Your task to perform on an android device: turn on translation in the chrome app Image 0: 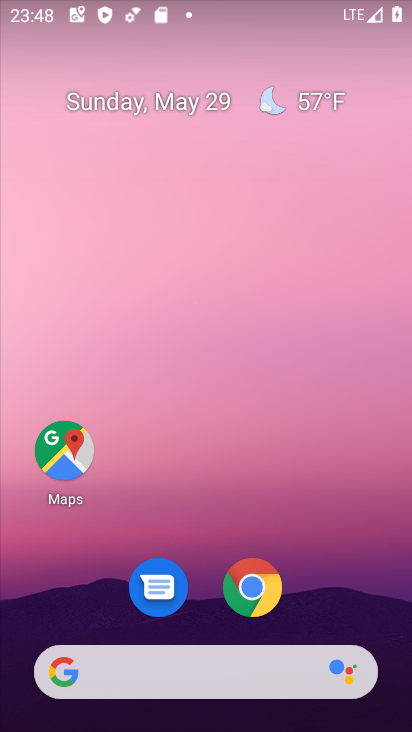
Step 0: drag from (377, 606) to (244, 87)
Your task to perform on an android device: turn on translation in the chrome app Image 1: 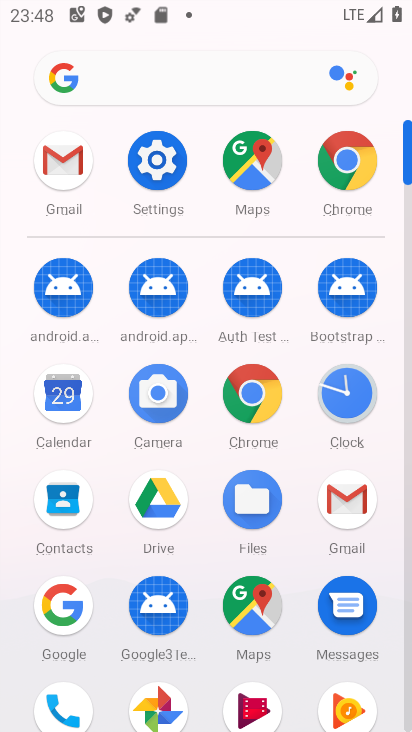
Step 1: click (355, 161)
Your task to perform on an android device: turn on translation in the chrome app Image 2: 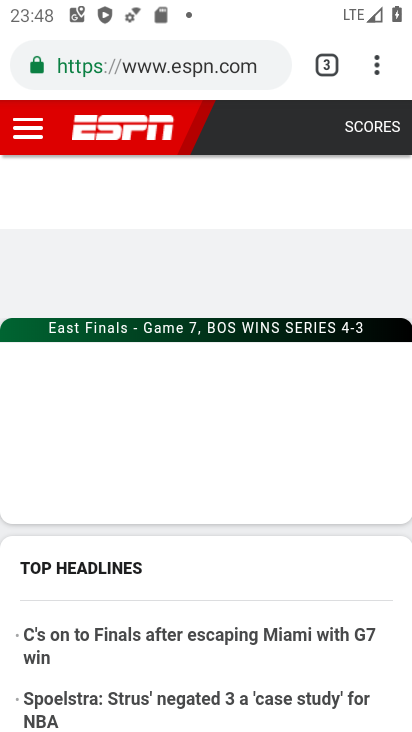
Step 2: click (369, 79)
Your task to perform on an android device: turn on translation in the chrome app Image 3: 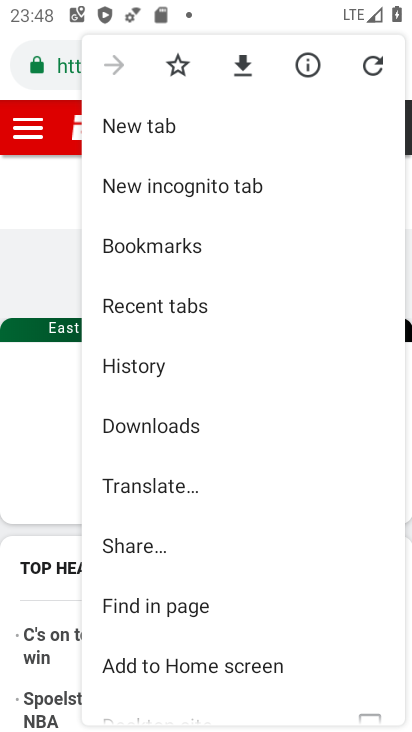
Step 3: drag from (313, 664) to (250, 335)
Your task to perform on an android device: turn on translation in the chrome app Image 4: 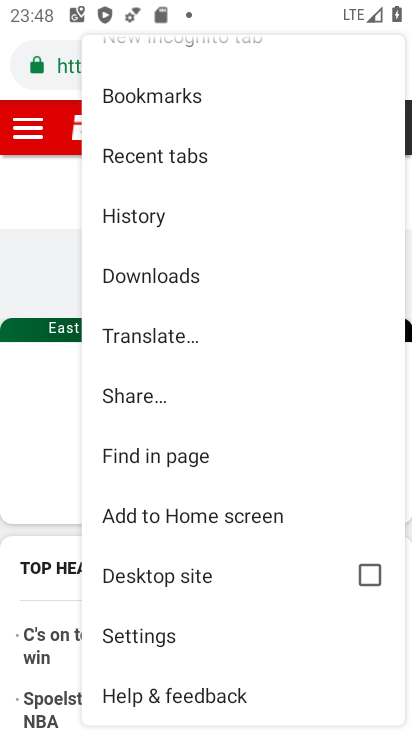
Step 4: click (245, 640)
Your task to perform on an android device: turn on translation in the chrome app Image 5: 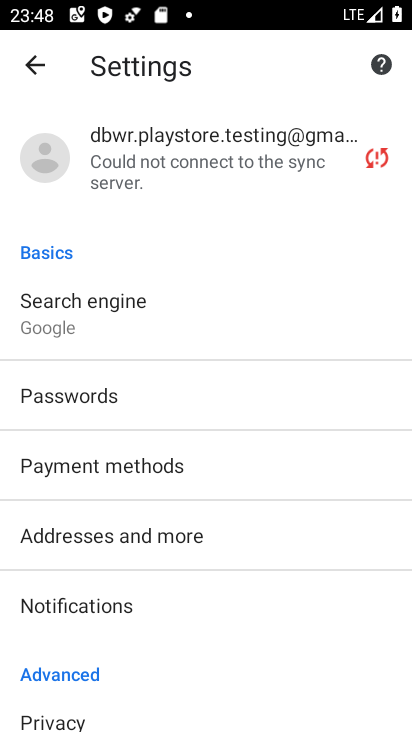
Step 5: drag from (245, 640) to (175, 271)
Your task to perform on an android device: turn on translation in the chrome app Image 6: 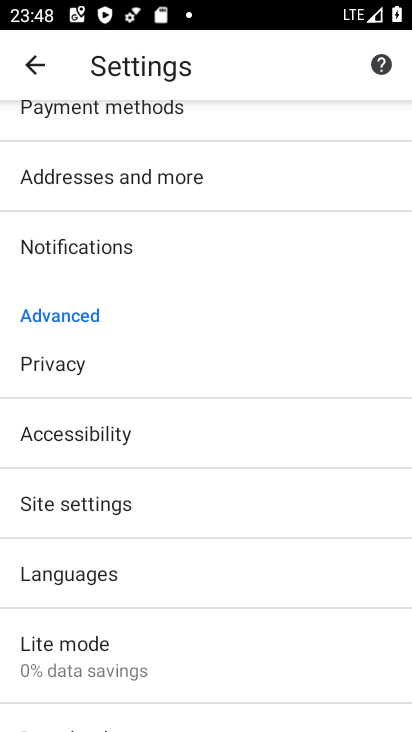
Step 6: click (189, 583)
Your task to perform on an android device: turn on translation in the chrome app Image 7: 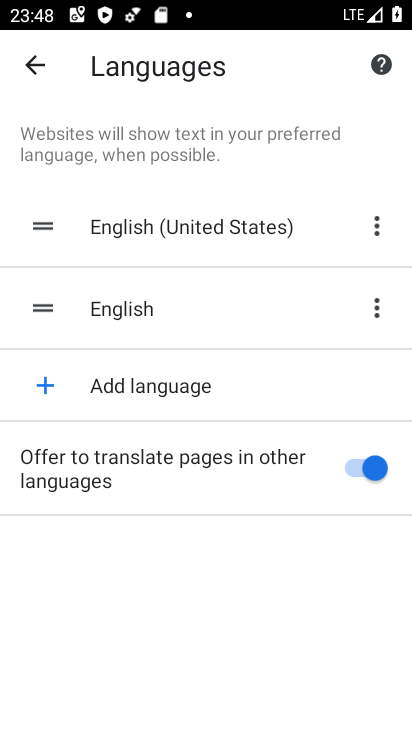
Step 7: task complete